Your task to perform on an android device: Check the weather Image 0: 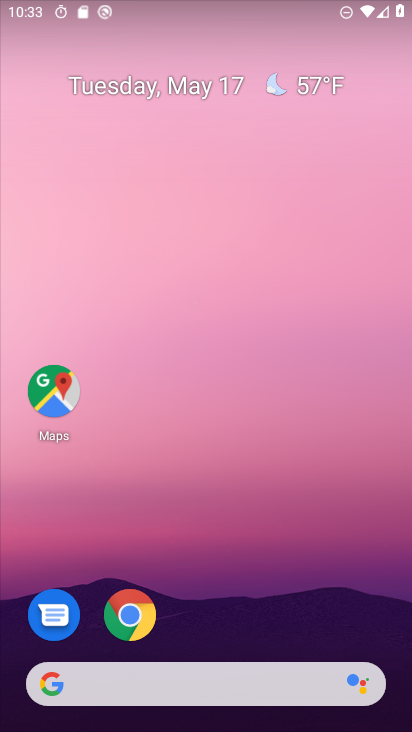
Step 0: click (314, 78)
Your task to perform on an android device: Check the weather Image 1: 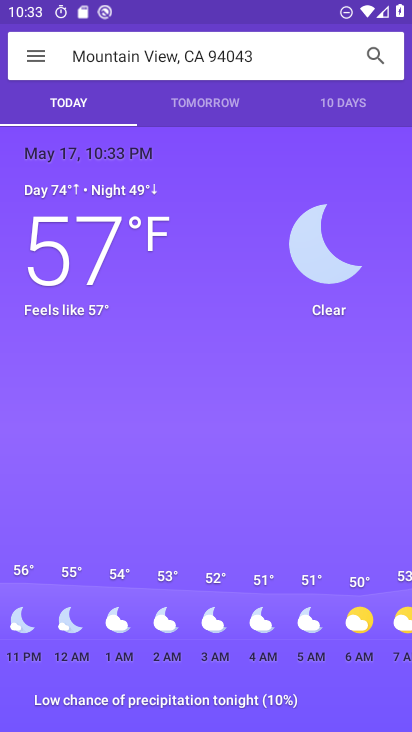
Step 1: task complete